Your task to perform on an android device: read, delete, or share a saved page in the chrome app Image 0: 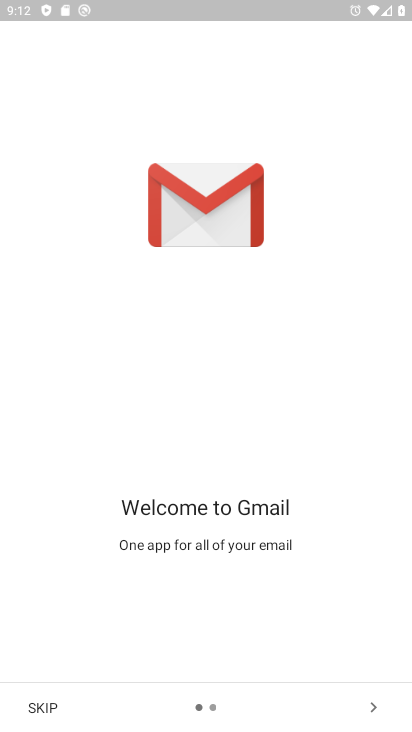
Step 0: click (373, 703)
Your task to perform on an android device: read, delete, or share a saved page in the chrome app Image 1: 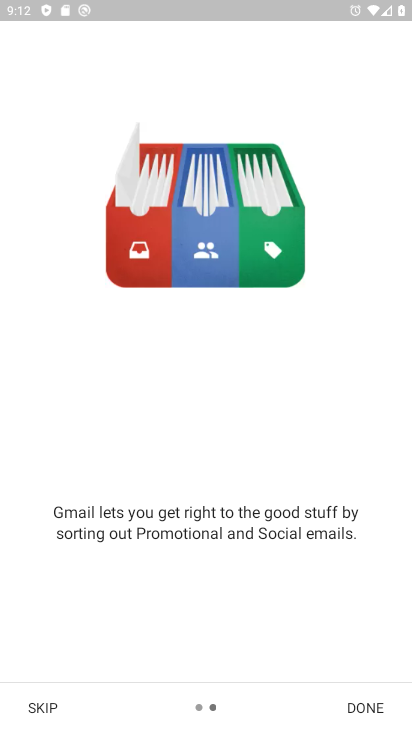
Step 1: click (364, 707)
Your task to perform on an android device: read, delete, or share a saved page in the chrome app Image 2: 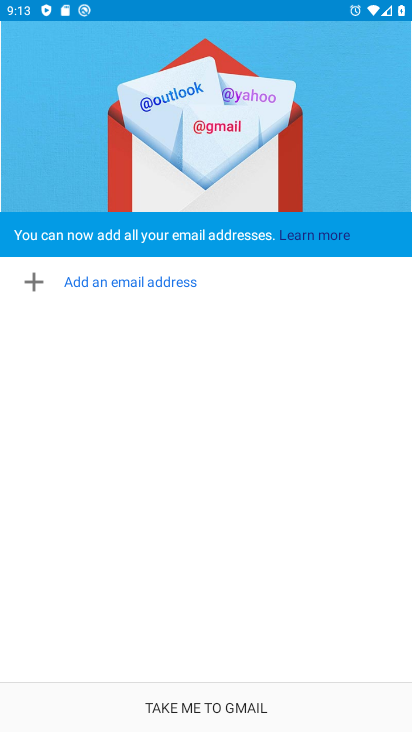
Step 2: click (189, 707)
Your task to perform on an android device: read, delete, or share a saved page in the chrome app Image 3: 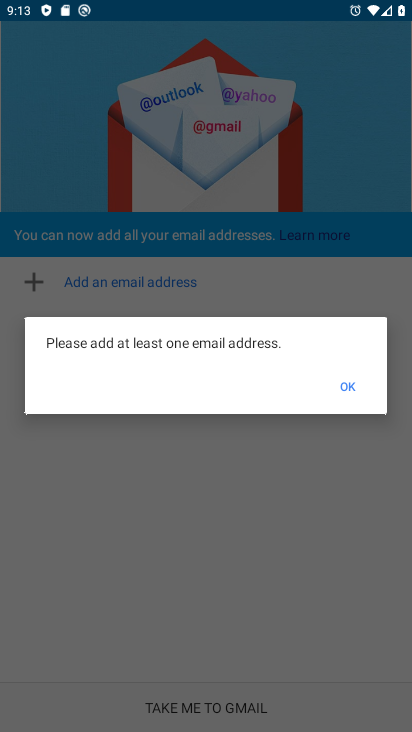
Step 3: task complete